Your task to perform on an android device: Open Google Maps and go to "Timeline" Image 0: 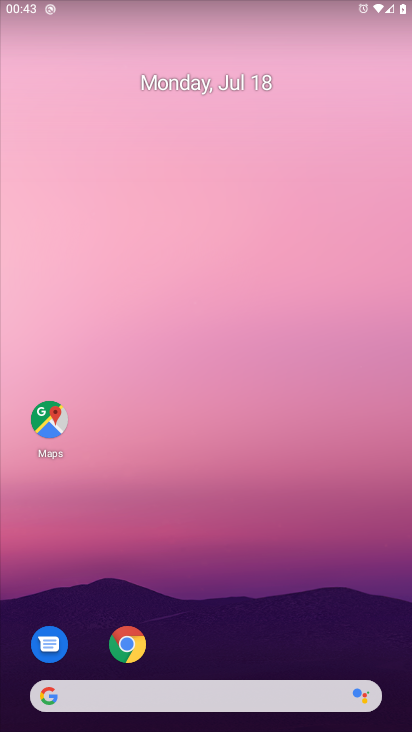
Step 0: press home button
Your task to perform on an android device: Open Google Maps and go to "Timeline" Image 1: 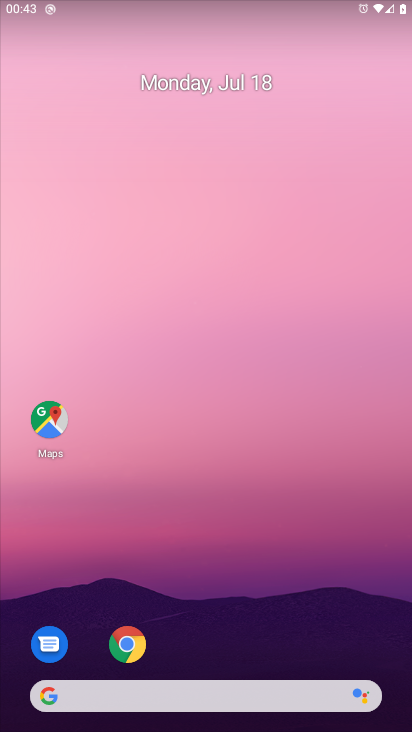
Step 1: press home button
Your task to perform on an android device: Open Google Maps and go to "Timeline" Image 2: 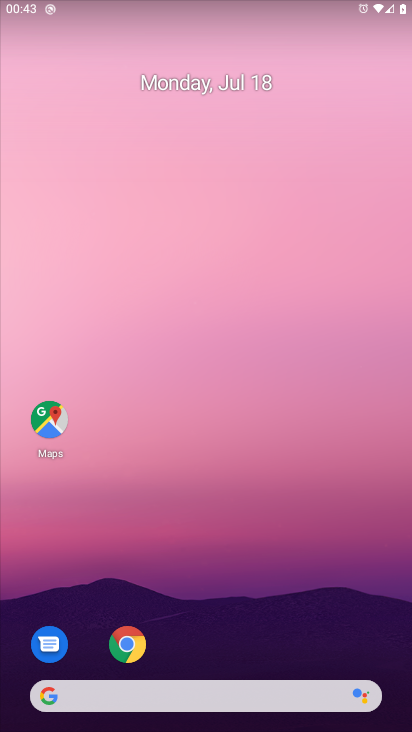
Step 2: click (46, 421)
Your task to perform on an android device: Open Google Maps and go to "Timeline" Image 3: 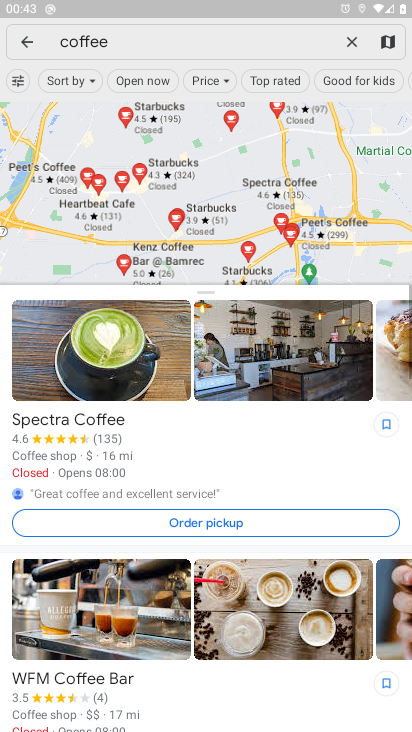
Step 3: click (19, 36)
Your task to perform on an android device: Open Google Maps and go to "Timeline" Image 4: 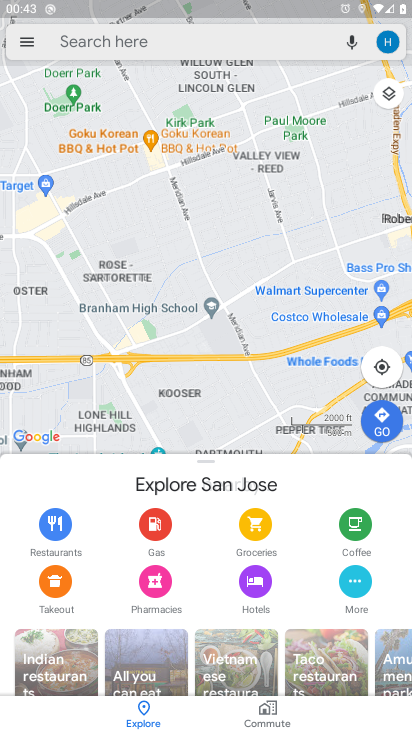
Step 4: click (21, 43)
Your task to perform on an android device: Open Google Maps and go to "Timeline" Image 5: 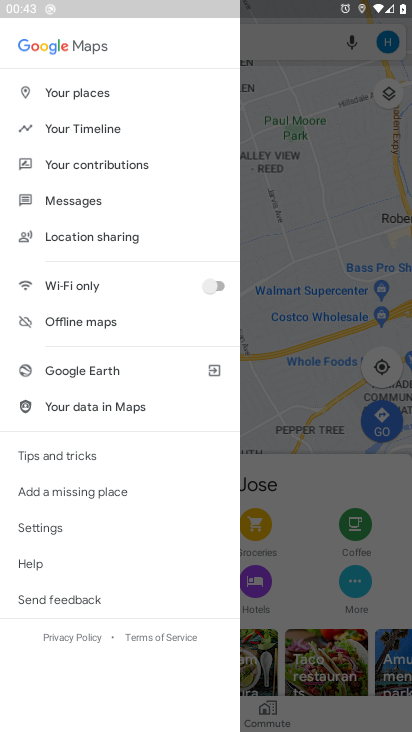
Step 5: click (84, 132)
Your task to perform on an android device: Open Google Maps and go to "Timeline" Image 6: 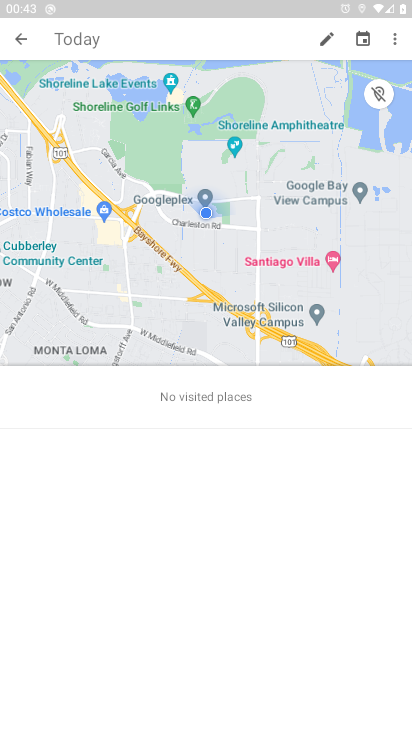
Step 6: task complete